Your task to perform on an android device: When is my next appointment? Image 0: 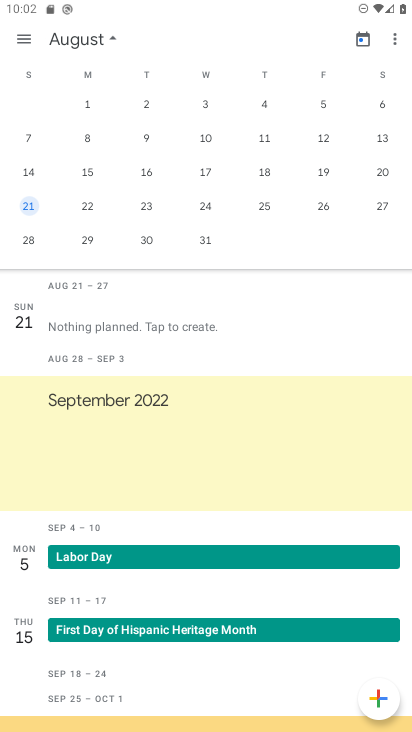
Step 0: press home button
Your task to perform on an android device: When is my next appointment? Image 1: 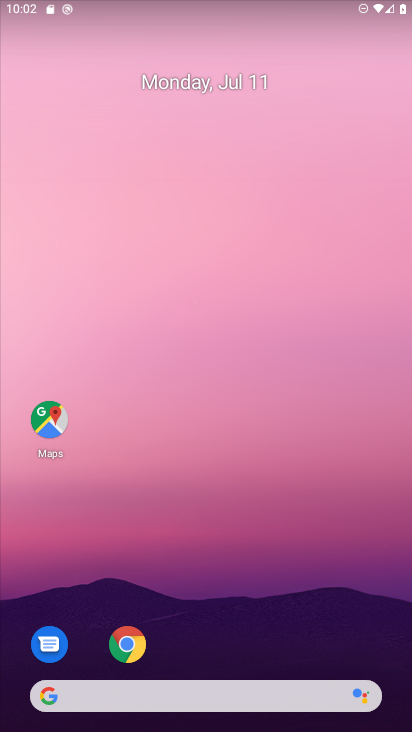
Step 1: drag from (237, 678) to (244, 79)
Your task to perform on an android device: When is my next appointment? Image 2: 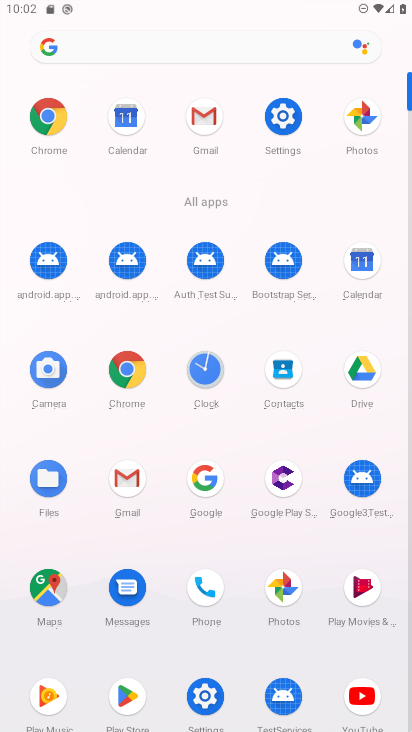
Step 2: click (373, 260)
Your task to perform on an android device: When is my next appointment? Image 3: 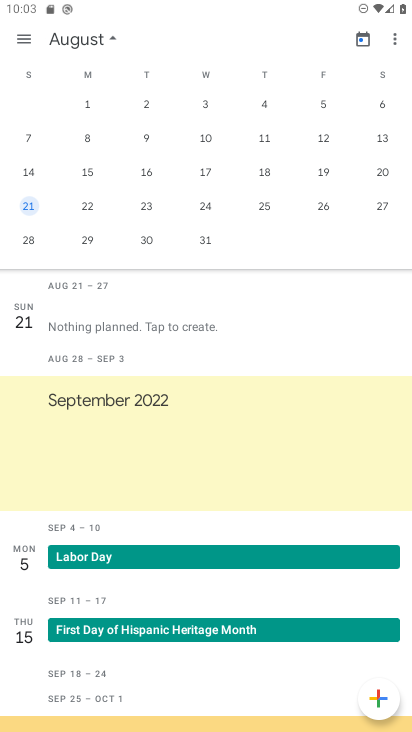
Step 3: task complete